Your task to perform on an android device: add a contact in the contacts app Image 0: 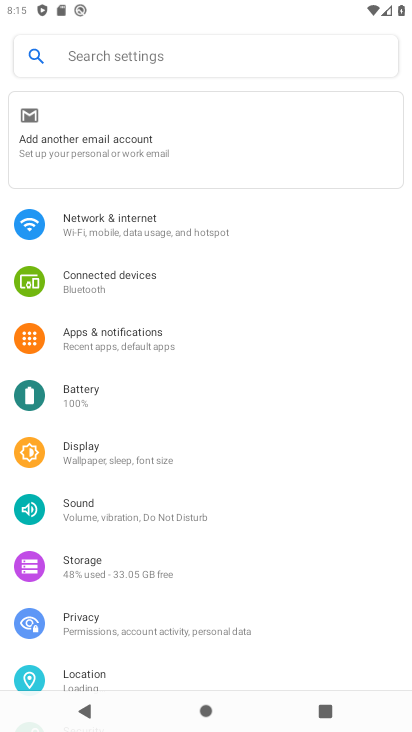
Step 0: press home button
Your task to perform on an android device: add a contact in the contacts app Image 1: 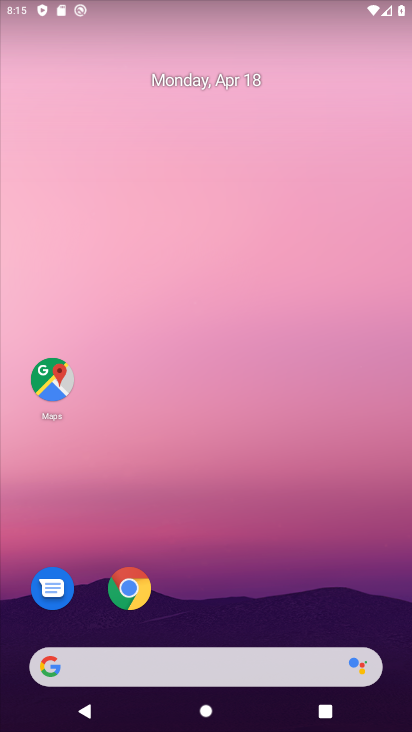
Step 1: drag from (227, 603) to (264, 25)
Your task to perform on an android device: add a contact in the contacts app Image 2: 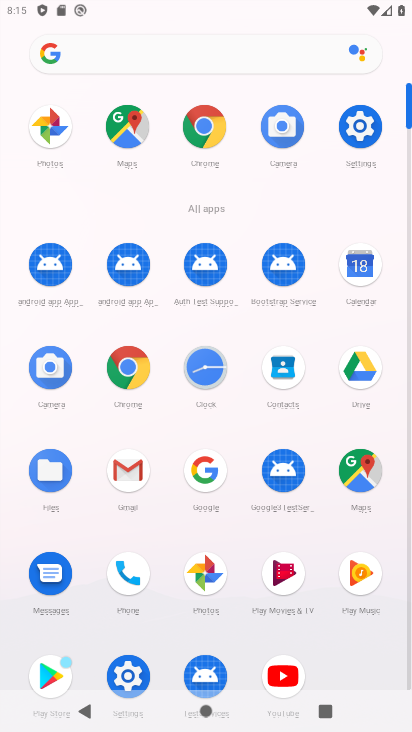
Step 2: click (276, 371)
Your task to perform on an android device: add a contact in the contacts app Image 3: 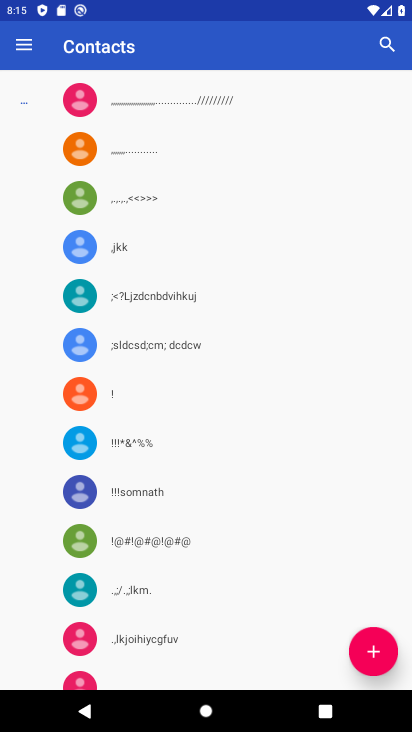
Step 3: click (389, 651)
Your task to perform on an android device: add a contact in the contacts app Image 4: 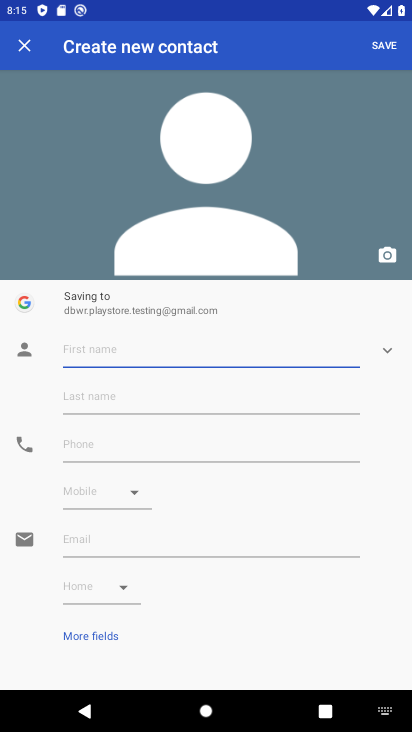
Step 4: click (141, 356)
Your task to perform on an android device: add a contact in the contacts app Image 5: 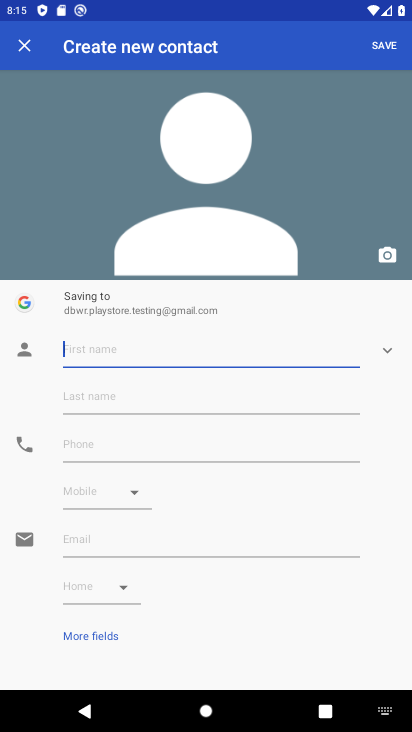
Step 5: type "chia"
Your task to perform on an android device: add a contact in the contacts app Image 6: 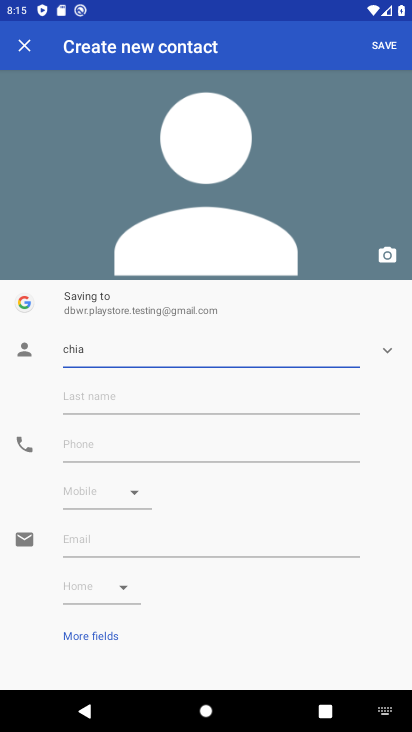
Step 6: click (112, 447)
Your task to perform on an android device: add a contact in the contacts app Image 7: 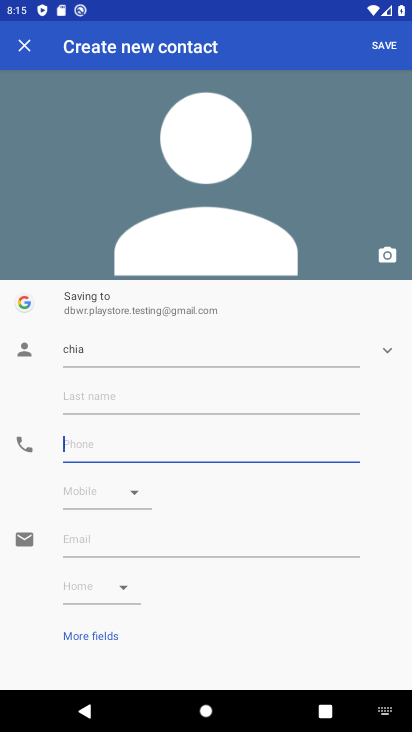
Step 7: type "123098345876"
Your task to perform on an android device: add a contact in the contacts app Image 8: 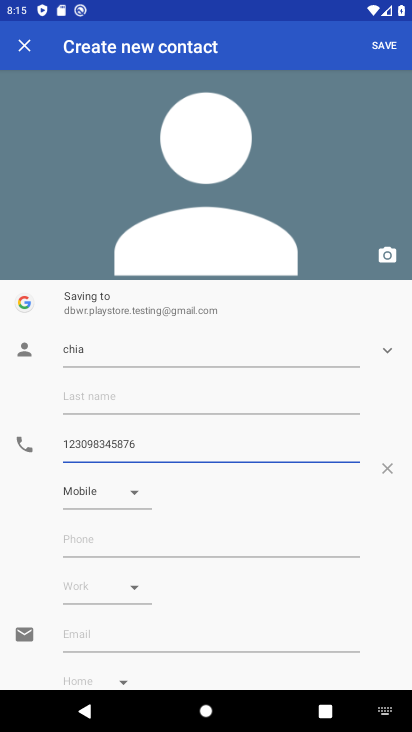
Step 8: click (392, 47)
Your task to perform on an android device: add a contact in the contacts app Image 9: 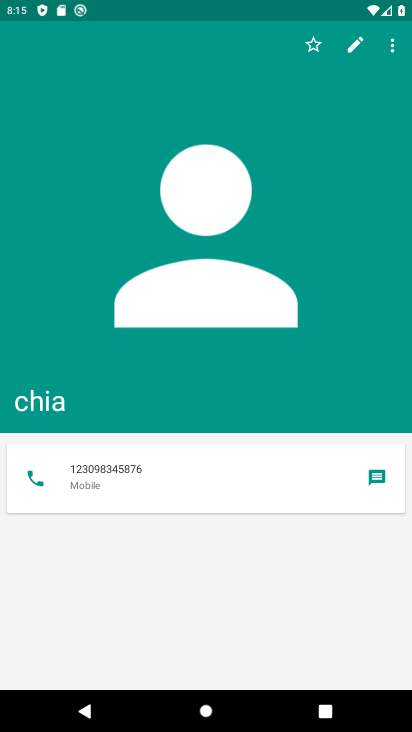
Step 9: task complete